Your task to perform on an android device: turn on bluetooth scan Image 0: 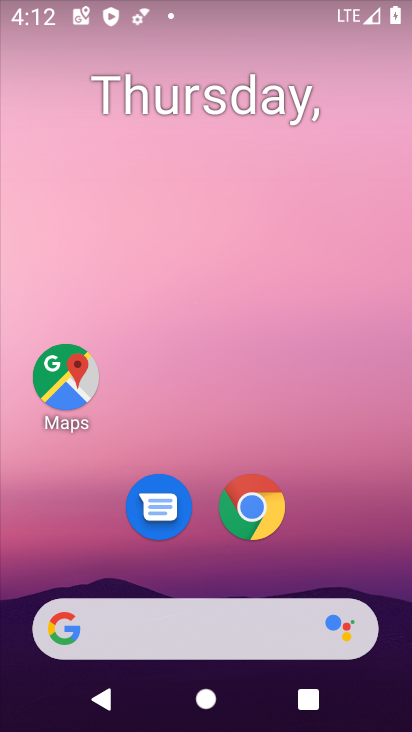
Step 0: press home button
Your task to perform on an android device: turn on bluetooth scan Image 1: 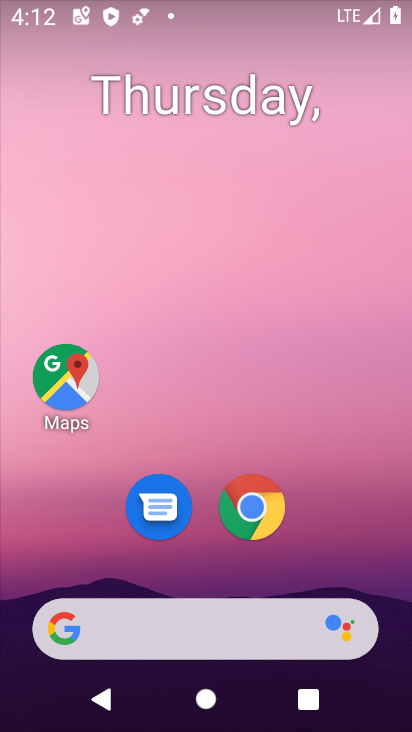
Step 1: click (353, 546)
Your task to perform on an android device: turn on bluetooth scan Image 2: 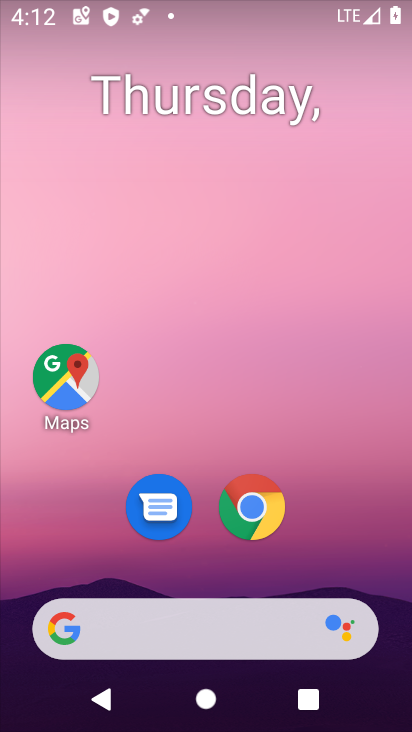
Step 2: drag from (350, 460) to (339, 76)
Your task to perform on an android device: turn on bluetooth scan Image 3: 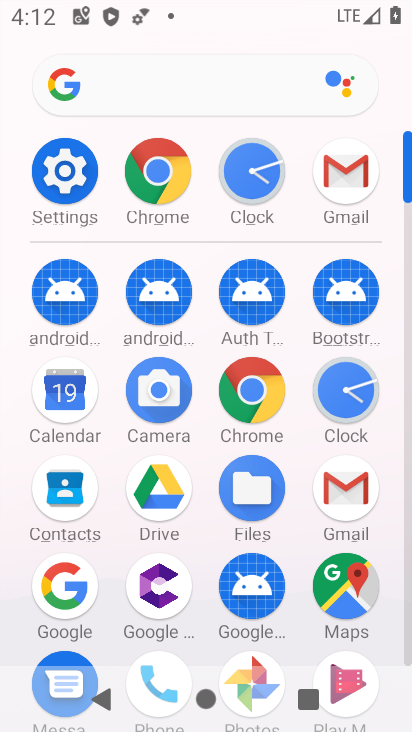
Step 3: click (80, 175)
Your task to perform on an android device: turn on bluetooth scan Image 4: 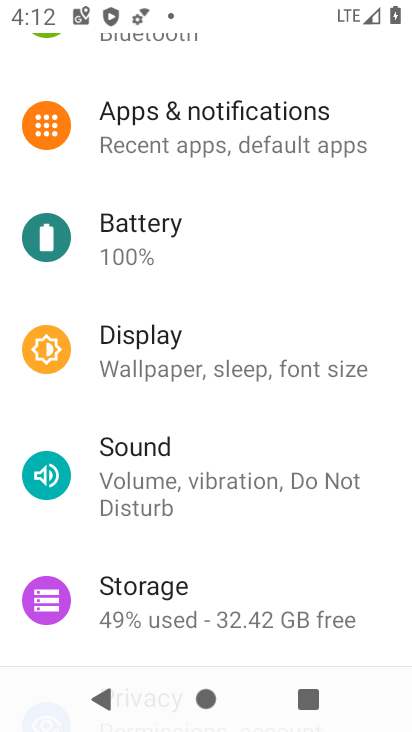
Step 4: drag from (194, 559) to (272, 191)
Your task to perform on an android device: turn on bluetooth scan Image 5: 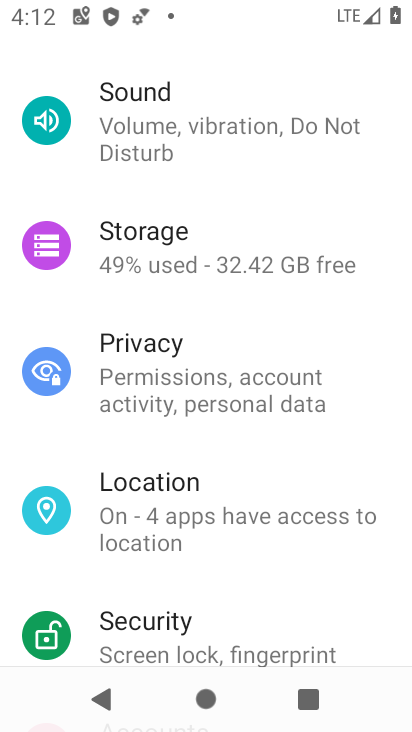
Step 5: click (207, 484)
Your task to perform on an android device: turn on bluetooth scan Image 6: 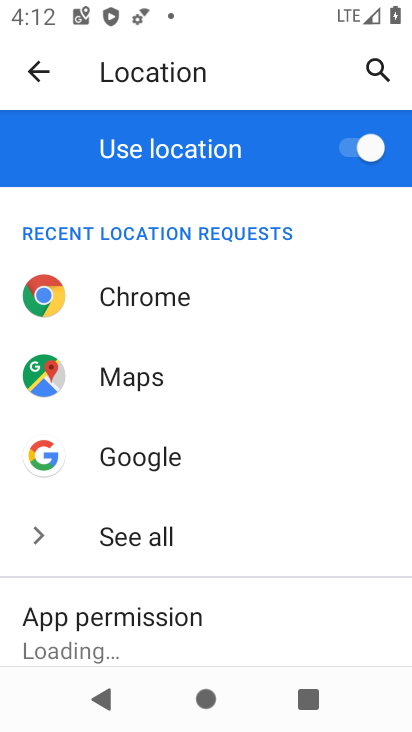
Step 6: drag from (178, 642) to (278, 395)
Your task to perform on an android device: turn on bluetooth scan Image 7: 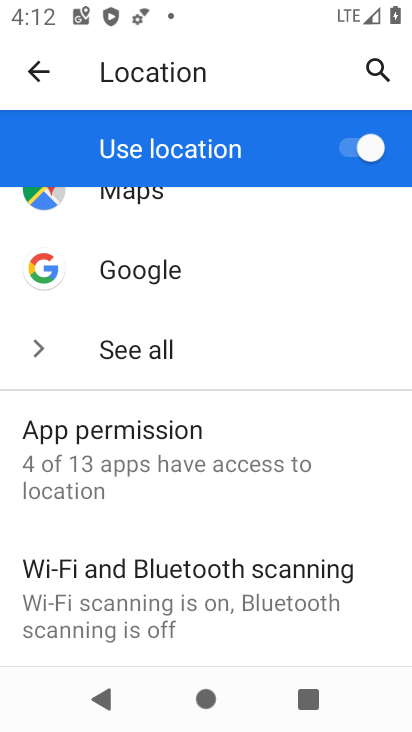
Step 7: click (163, 610)
Your task to perform on an android device: turn on bluetooth scan Image 8: 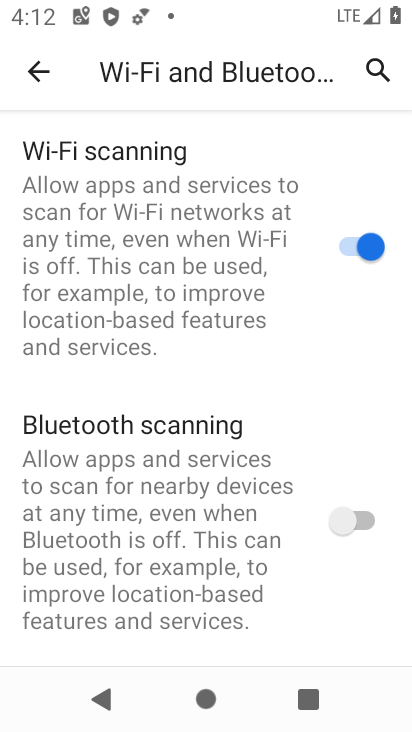
Step 8: click (335, 499)
Your task to perform on an android device: turn on bluetooth scan Image 9: 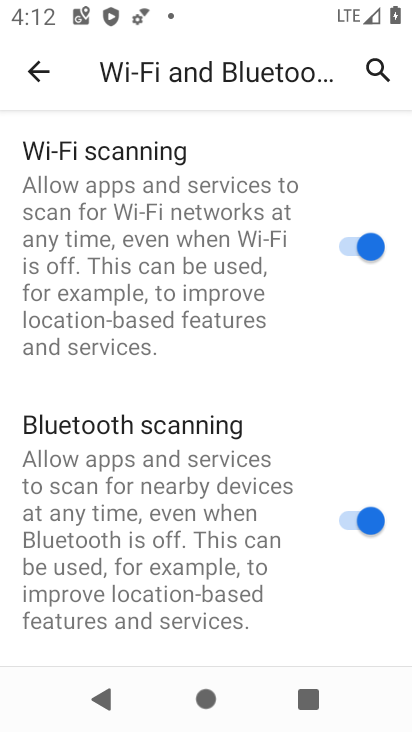
Step 9: task complete